Your task to perform on an android device: set the timer Image 0: 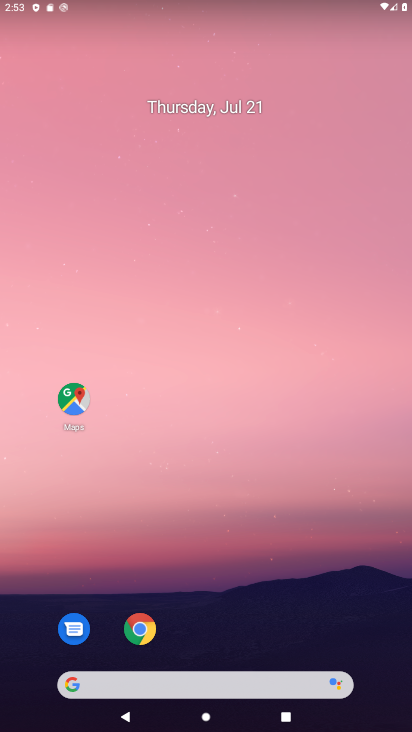
Step 0: press home button
Your task to perform on an android device: set the timer Image 1: 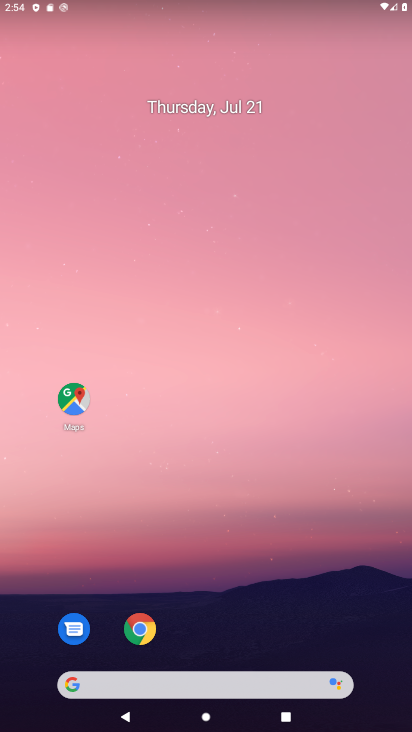
Step 1: drag from (290, 595) to (302, 200)
Your task to perform on an android device: set the timer Image 2: 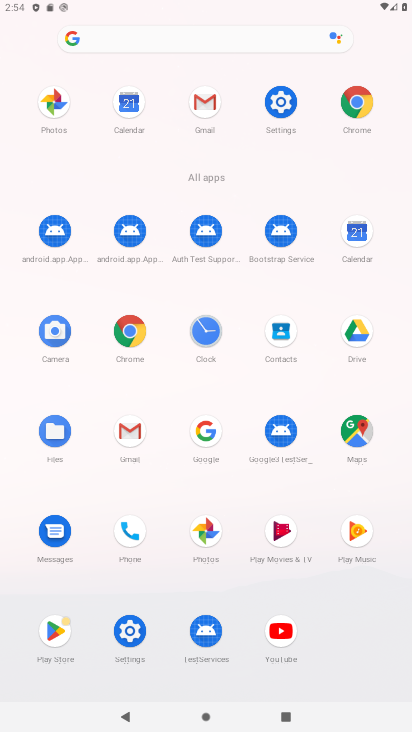
Step 2: click (207, 335)
Your task to perform on an android device: set the timer Image 3: 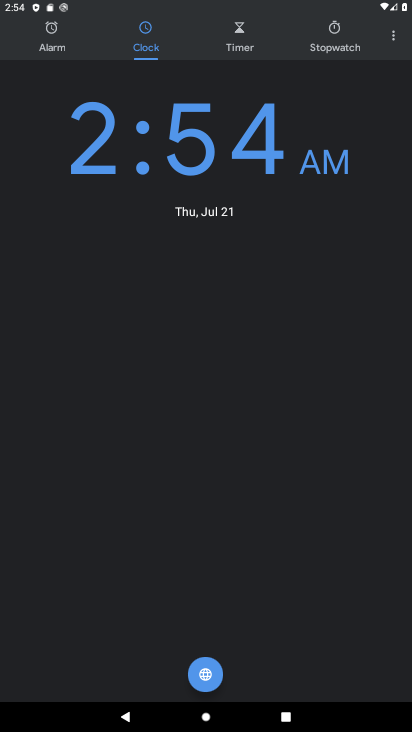
Step 3: click (218, 55)
Your task to perform on an android device: set the timer Image 4: 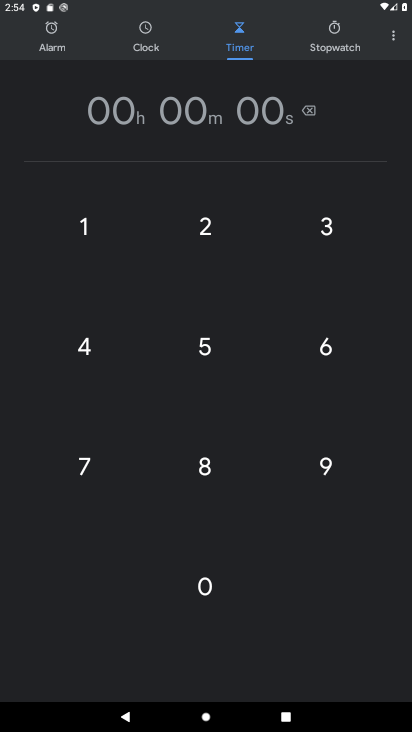
Step 4: click (346, 344)
Your task to perform on an android device: set the timer Image 5: 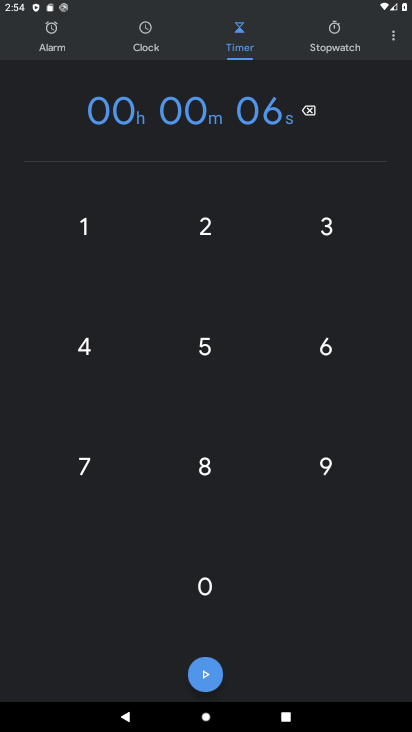
Step 5: click (216, 668)
Your task to perform on an android device: set the timer Image 6: 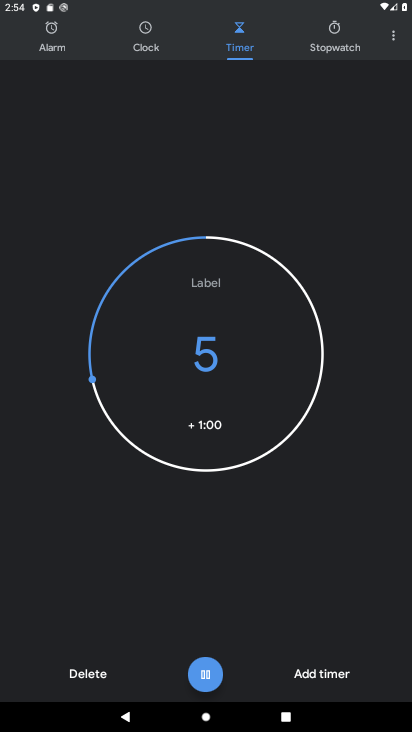
Step 6: task complete